Your task to perform on an android device: change keyboard looks Image 0: 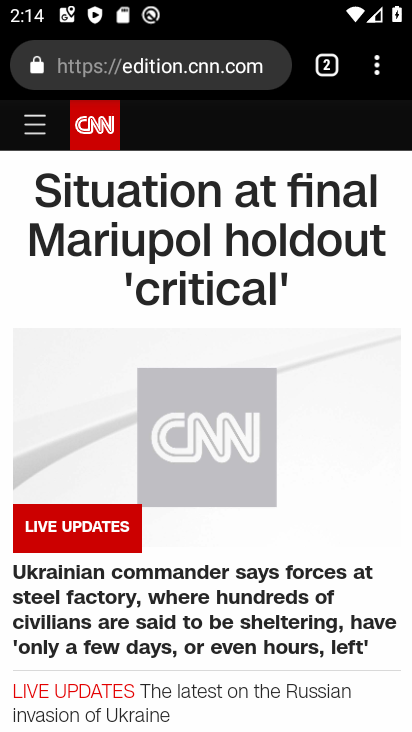
Step 0: press home button
Your task to perform on an android device: change keyboard looks Image 1: 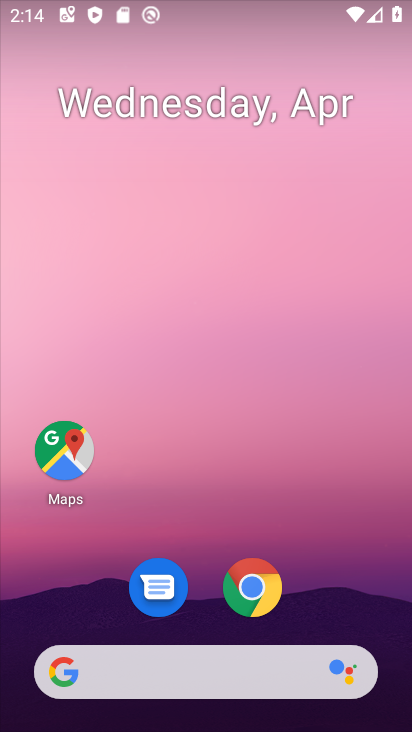
Step 1: drag from (200, 722) to (142, 56)
Your task to perform on an android device: change keyboard looks Image 2: 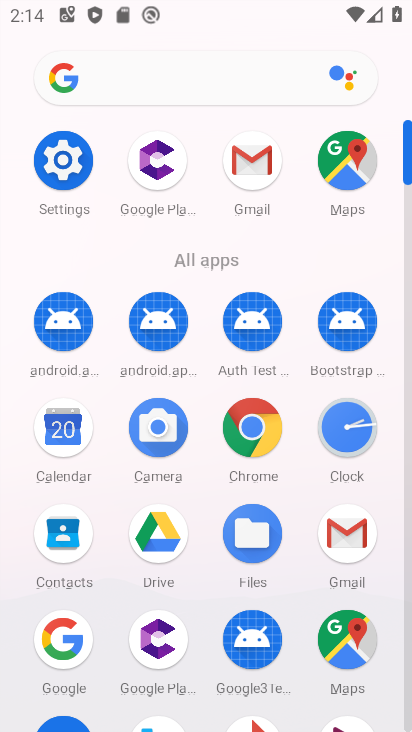
Step 2: click (73, 154)
Your task to perform on an android device: change keyboard looks Image 3: 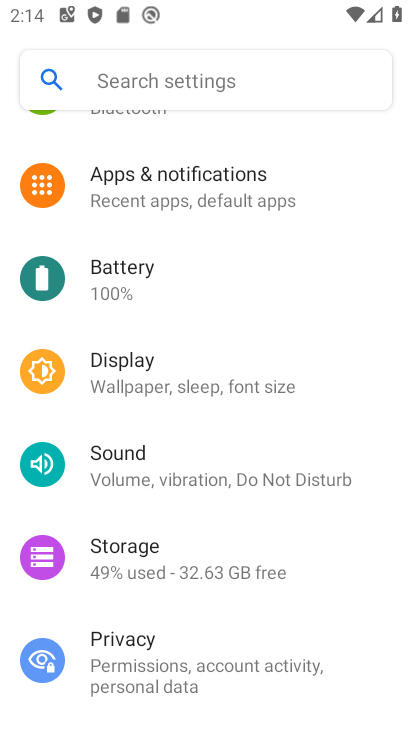
Step 3: drag from (338, 677) to (303, 117)
Your task to perform on an android device: change keyboard looks Image 4: 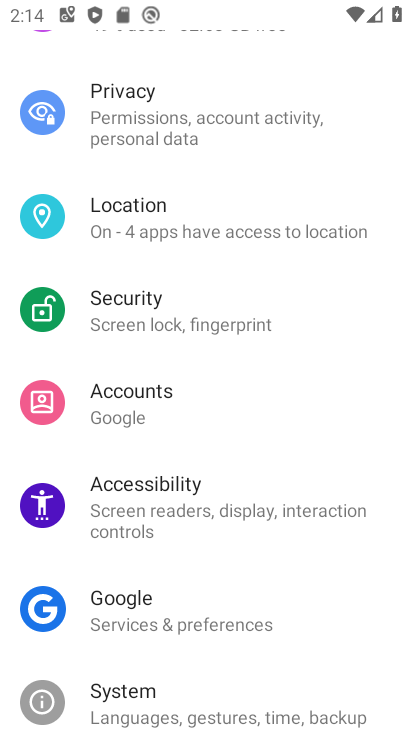
Step 4: click (312, 698)
Your task to perform on an android device: change keyboard looks Image 5: 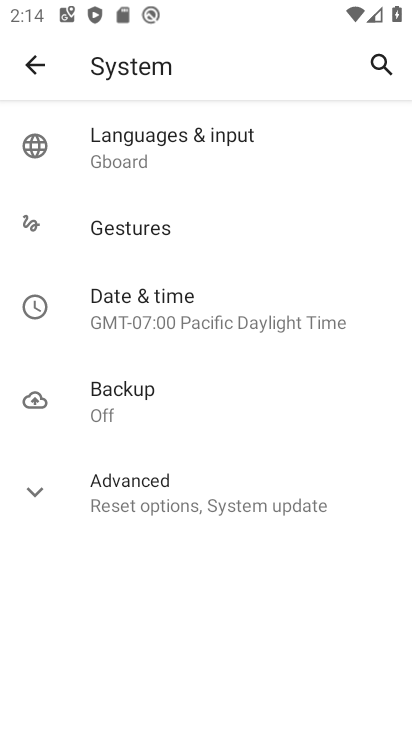
Step 5: click (180, 139)
Your task to perform on an android device: change keyboard looks Image 6: 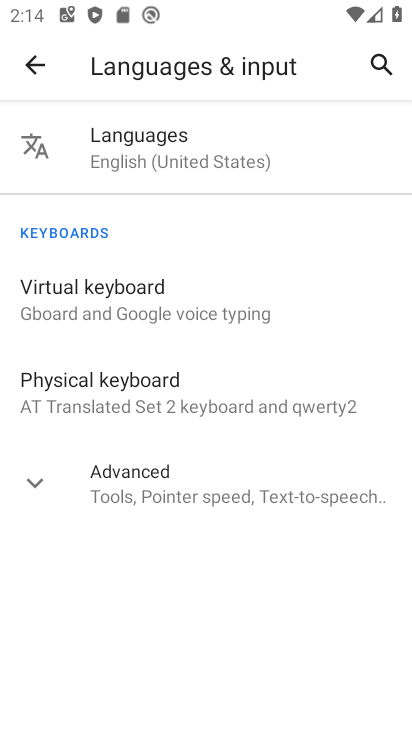
Step 6: click (148, 302)
Your task to perform on an android device: change keyboard looks Image 7: 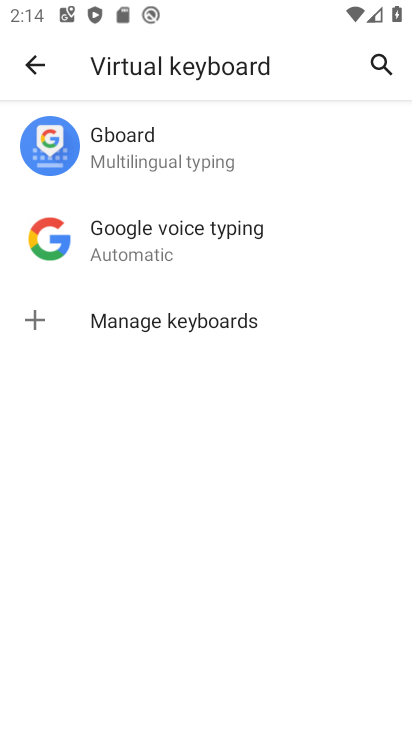
Step 7: click (224, 143)
Your task to perform on an android device: change keyboard looks Image 8: 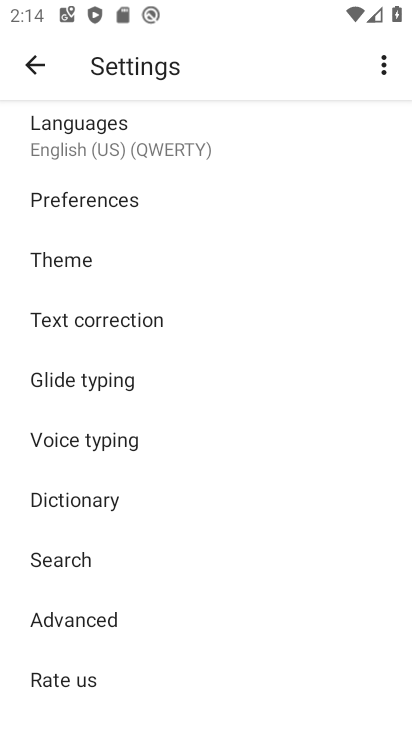
Step 8: click (86, 262)
Your task to perform on an android device: change keyboard looks Image 9: 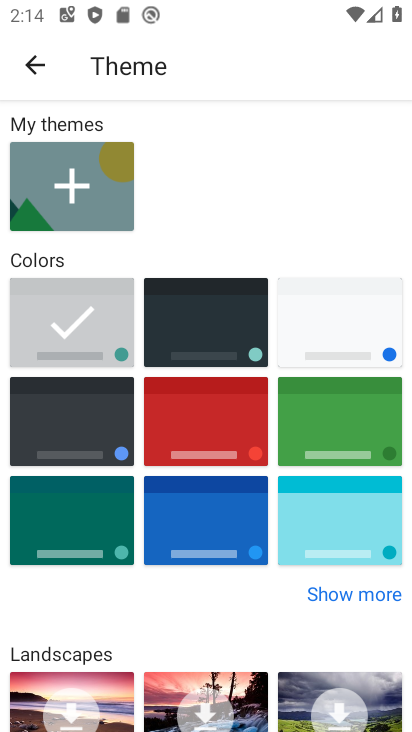
Step 9: click (167, 419)
Your task to perform on an android device: change keyboard looks Image 10: 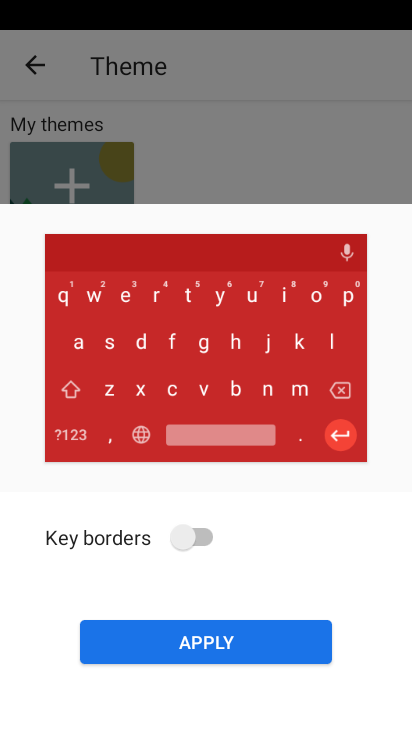
Step 10: click (239, 656)
Your task to perform on an android device: change keyboard looks Image 11: 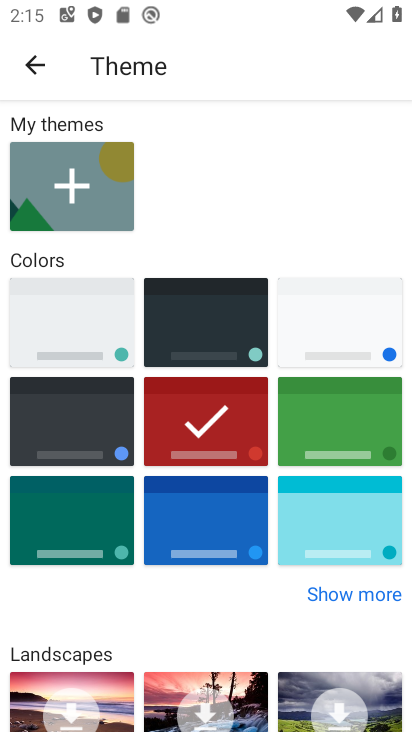
Step 11: task complete